Your task to perform on an android device: Show the shopping cart on ebay.com. Add "usb-a" to the cart on ebay.com Image 0: 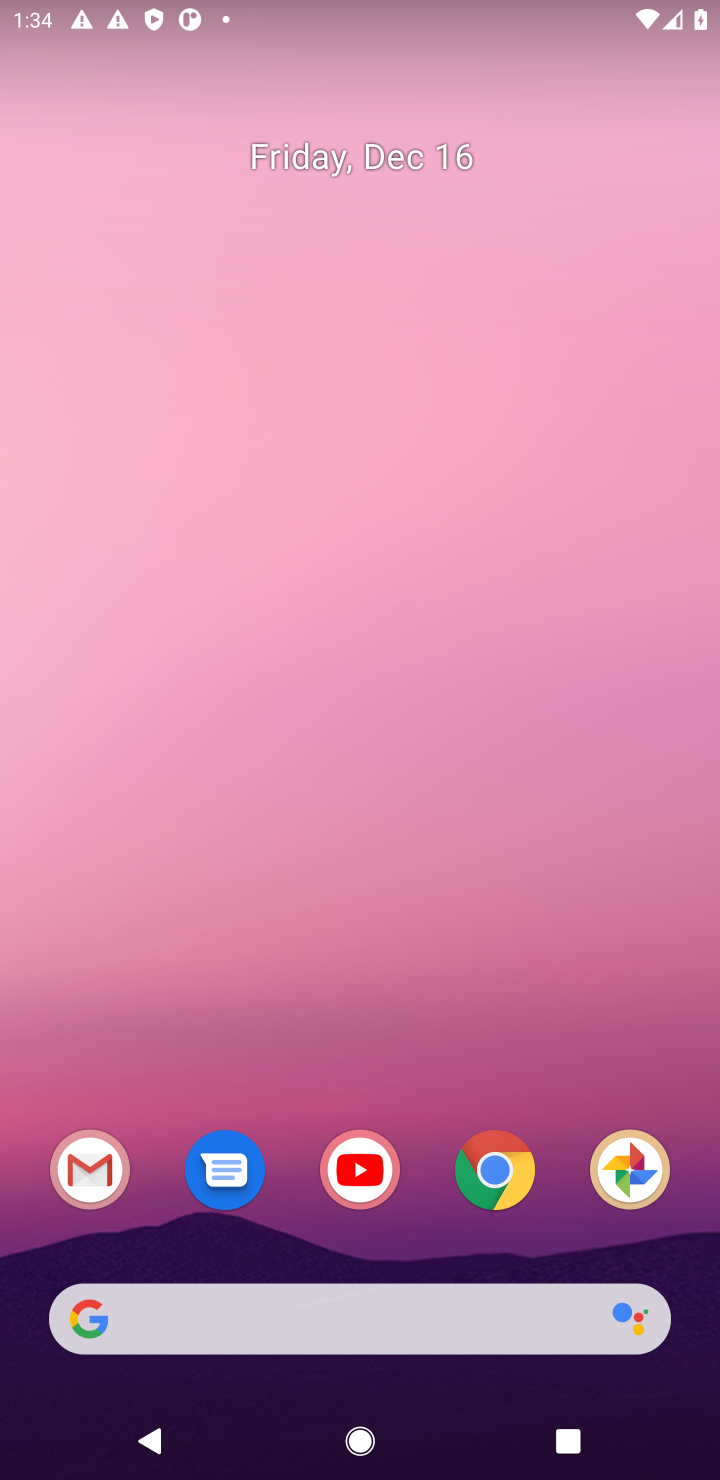
Step 0: click (496, 1169)
Your task to perform on an android device: Show the shopping cart on ebay.com. Add "usb-a" to the cart on ebay.com Image 1: 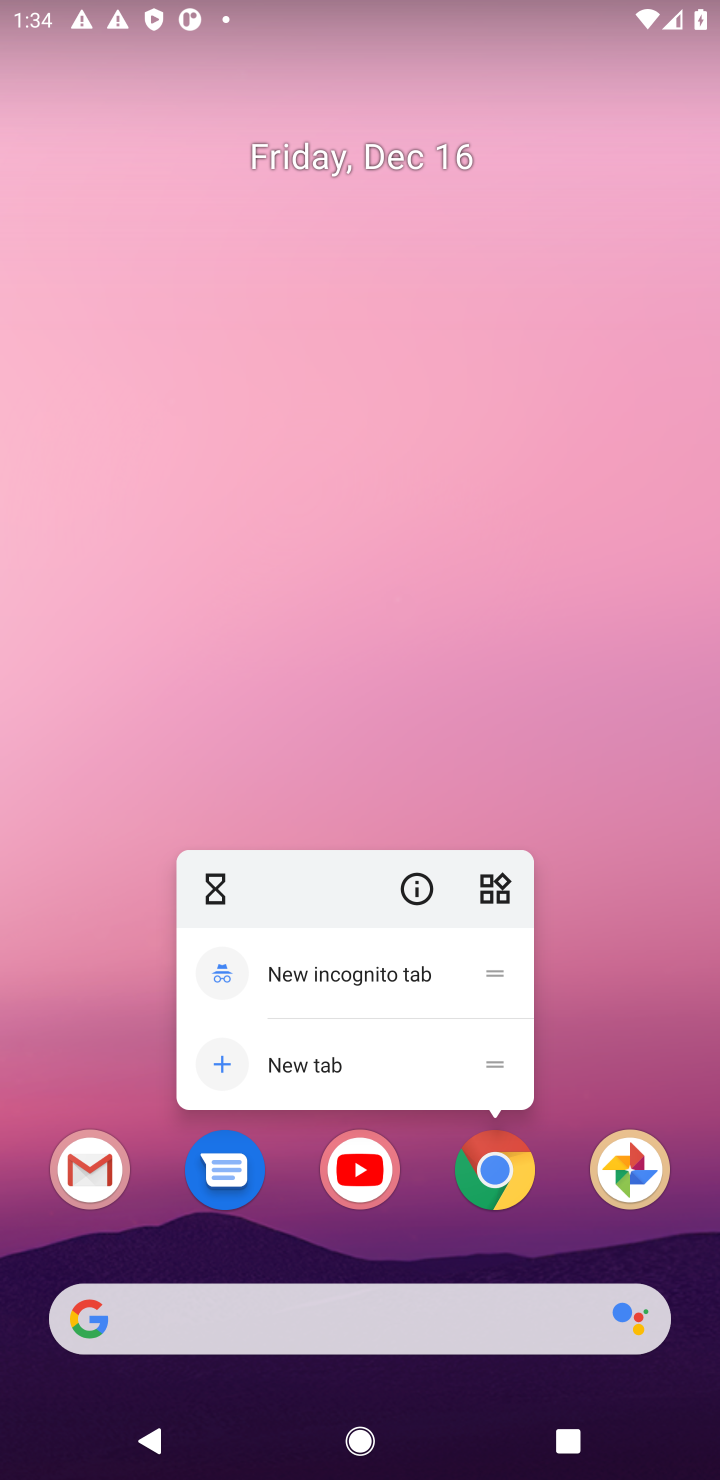
Step 1: click (499, 1177)
Your task to perform on an android device: Show the shopping cart on ebay.com. Add "usb-a" to the cart on ebay.com Image 2: 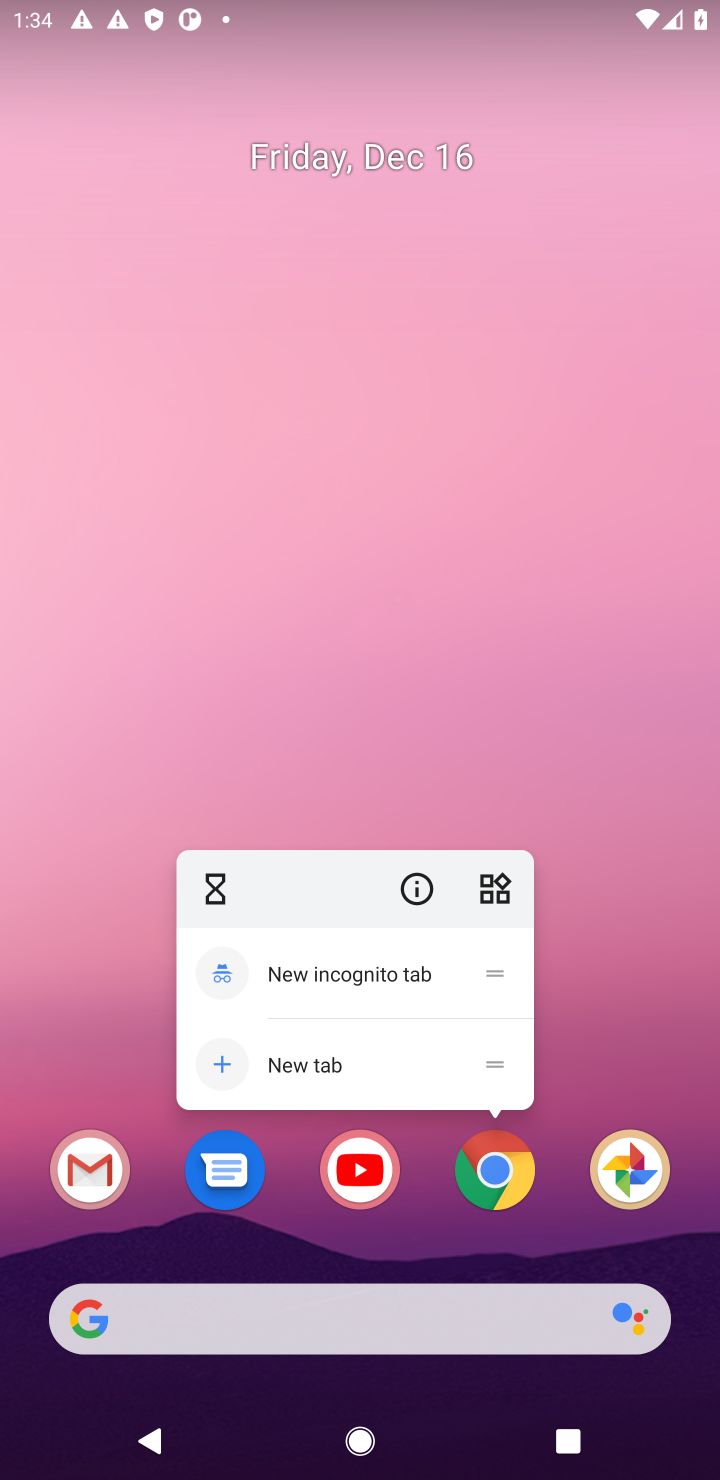
Step 2: click (583, 942)
Your task to perform on an android device: Show the shopping cart on ebay.com. Add "usb-a" to the cart on ebay.com Image 3: 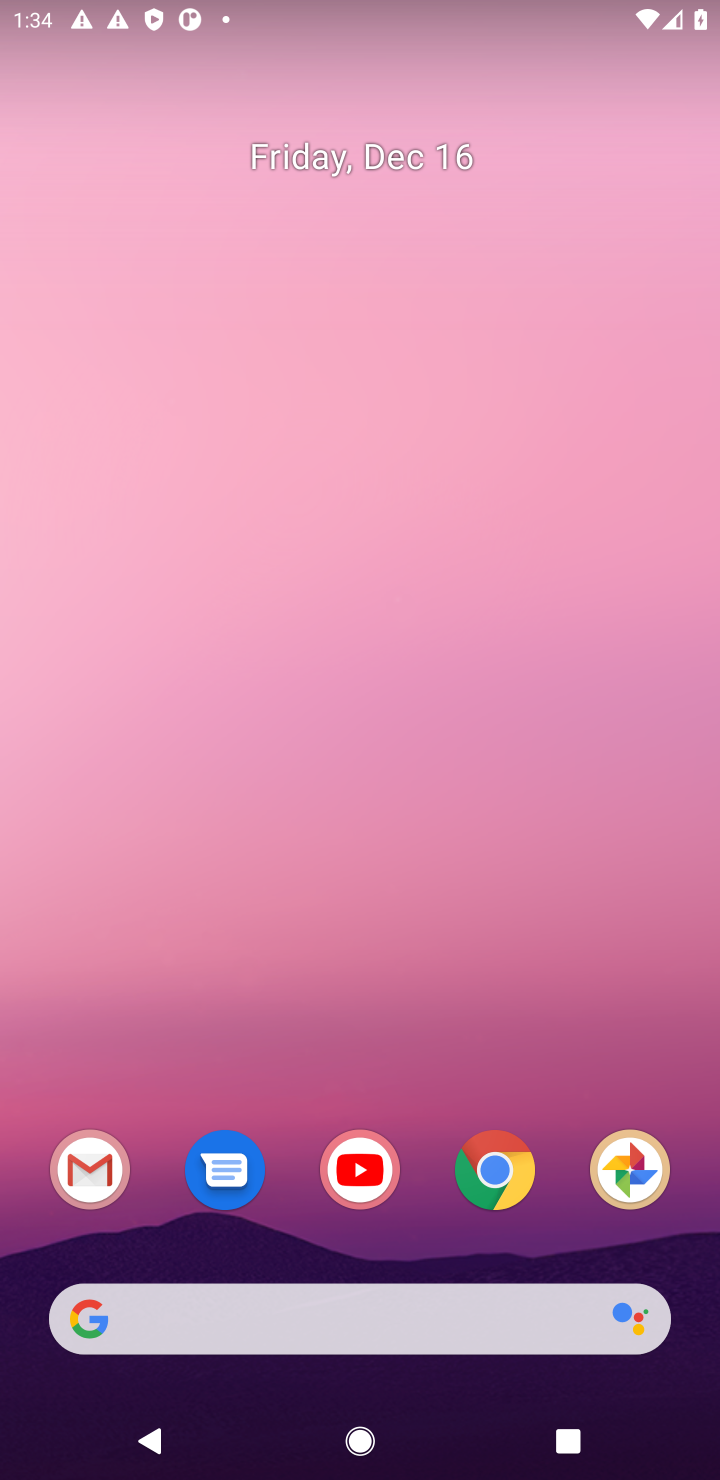
Step 3: click (506, 1175)
Your task to perform on an android device: Show the shopping cart on ebay.com. Add "usb-a" to the cart on ebay.com Image 4: 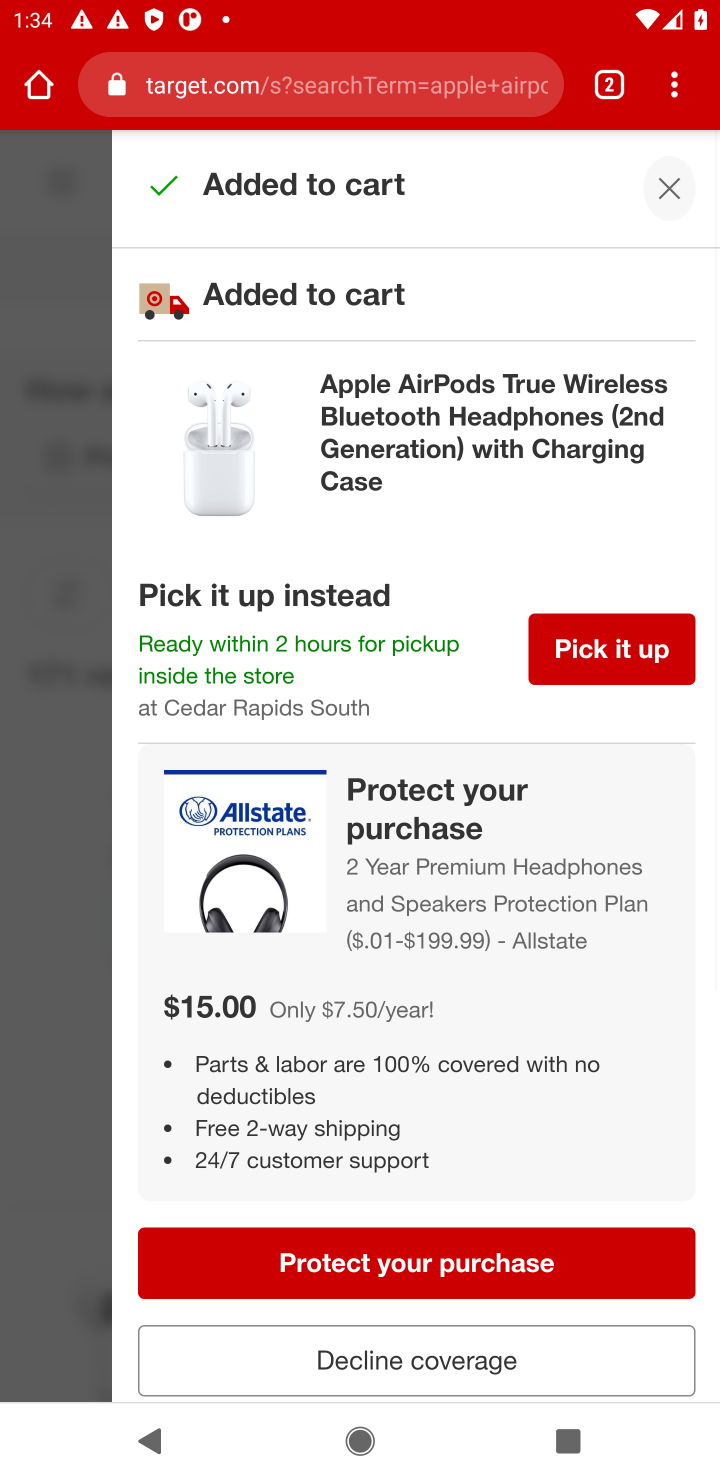
Step 4: click (235, 88)
Your task to perform on an android device: Show the shopping cart on ebay.com. Add "usb-a" to the cart on ebay.com Image 5: 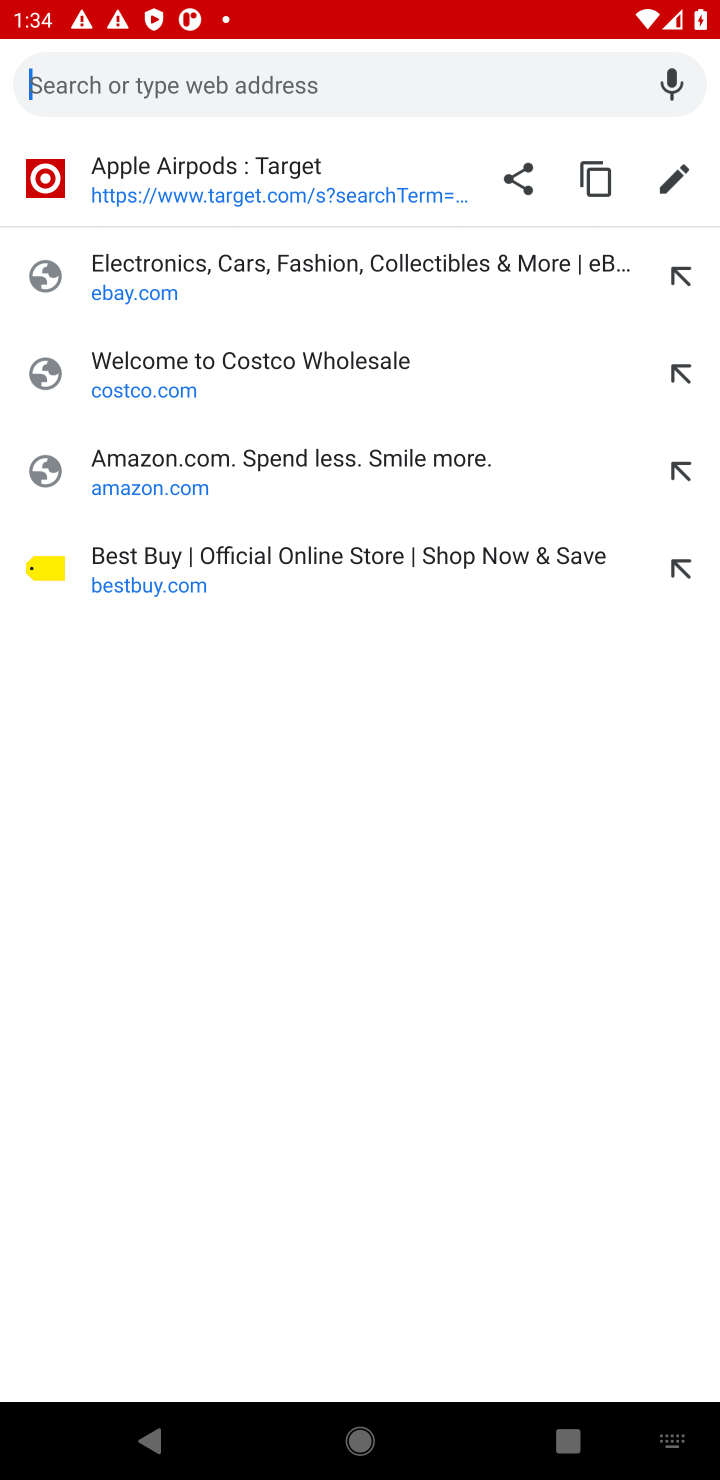
Step 5: click (122, 287)
Your task to perform on an android device: Show the shopping cart on ebay.com. Add "usb-a" to the cart on ebay.com Image 6: 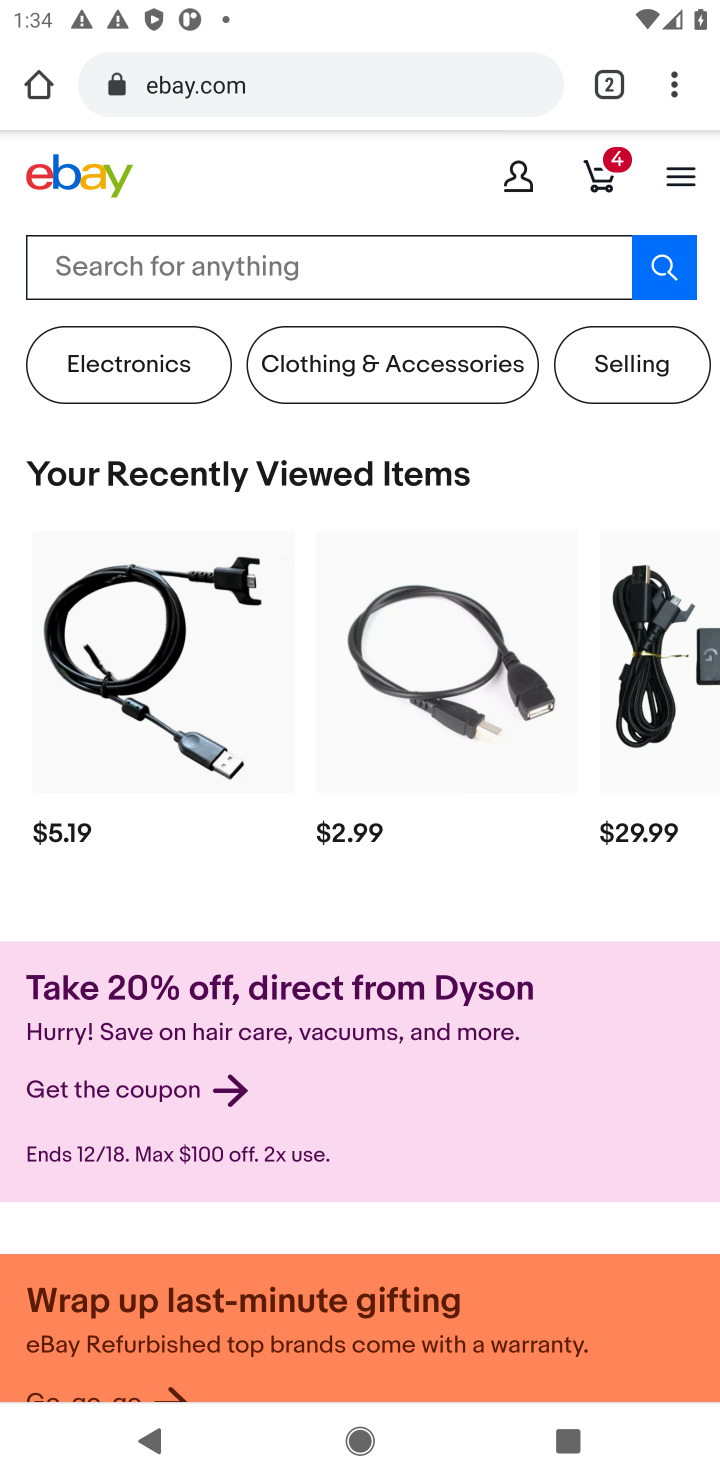
Step 6: click (610, 178)
Your task to perform on an android device: Show the shopping cart on ebay.com. Add "usb-a" to the cart on ebay.com Image 7: 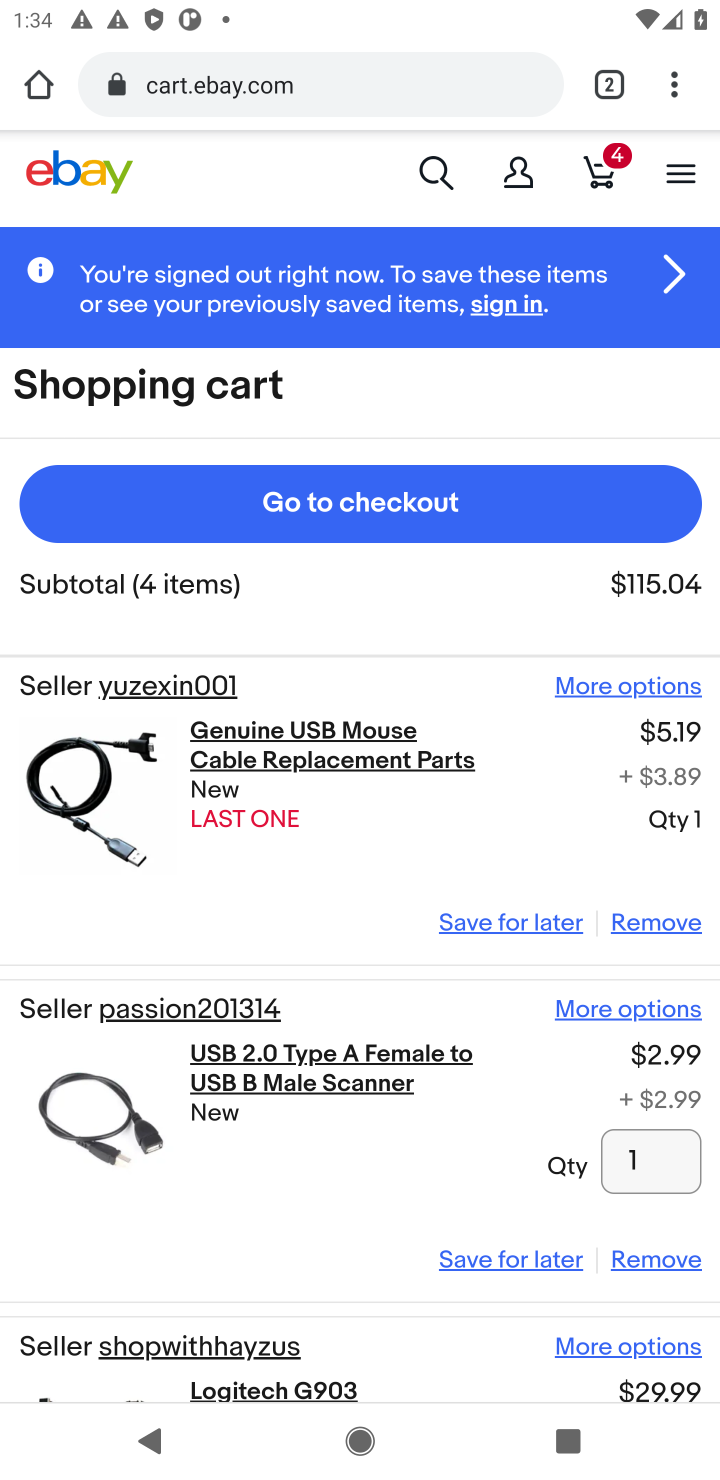
Step 7: click (433, 173)
Your task to perform on an android device: Show the shopping cart on ebay.com. Add "usb-a" to the cart on ebay.com Image 8: 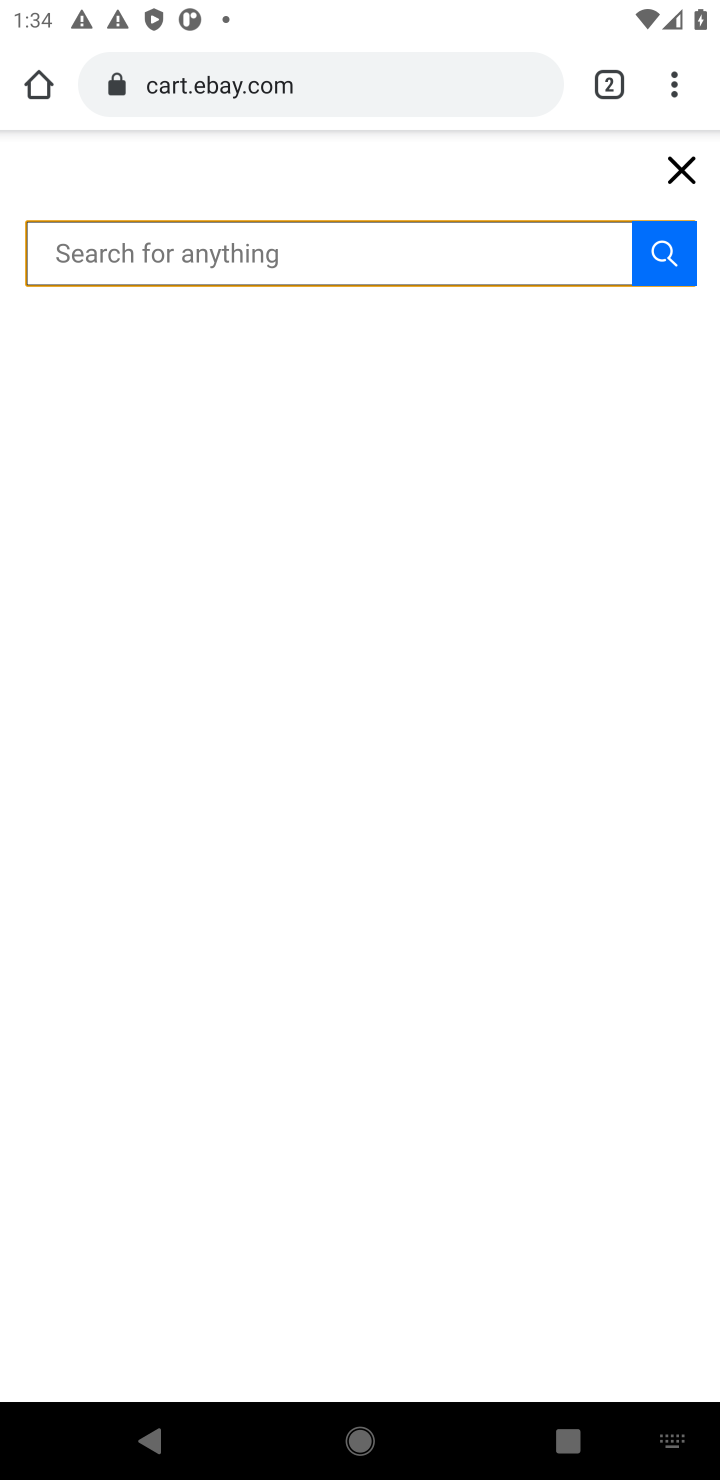
Step 8: type "usb-a"
Your task to perform on an android device: Show the shopping cart on ebay.com. Add "usb-a" to the cart on ebay.com Image 9: 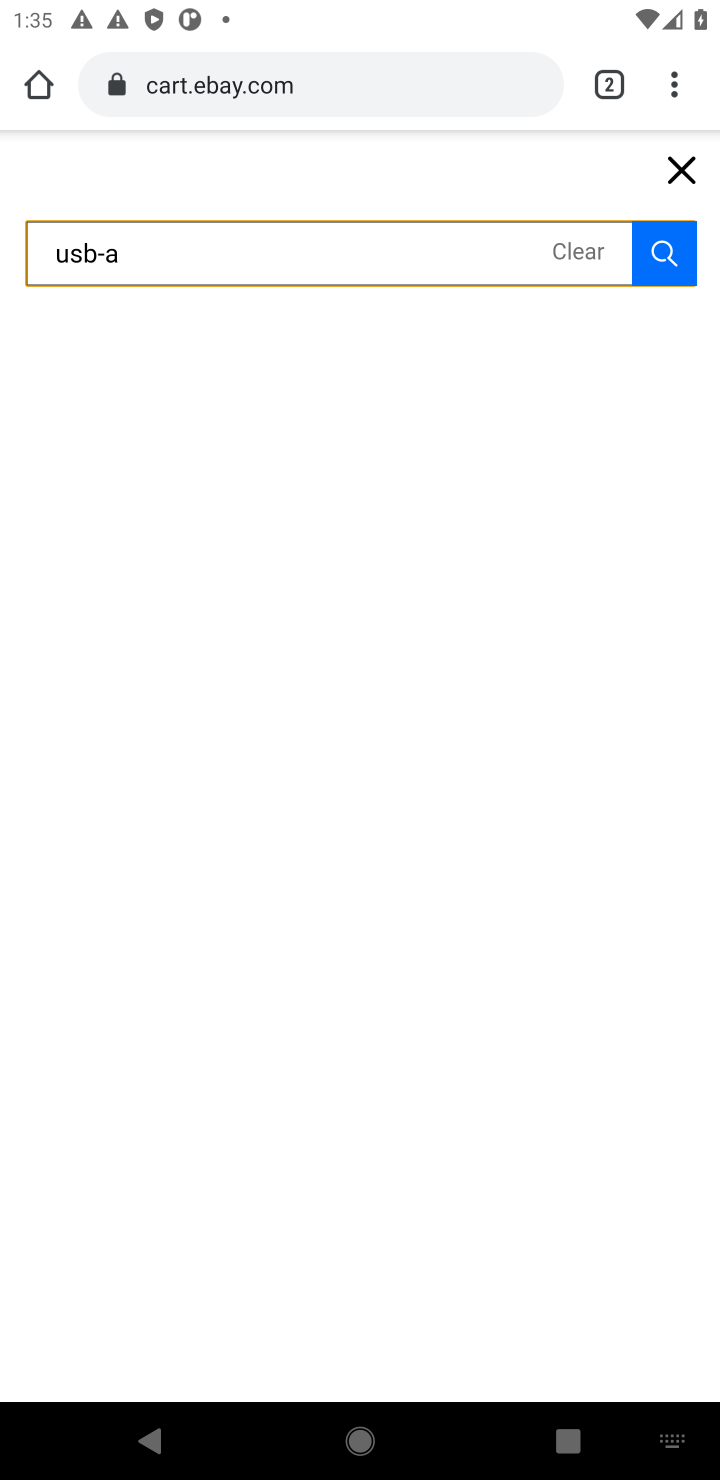
Step 9: click (666, 258)
Your task to perform on an android device: Show the shopping cart on ebay.com. Add "usb-a" to the cart on ebay.com Image 10: 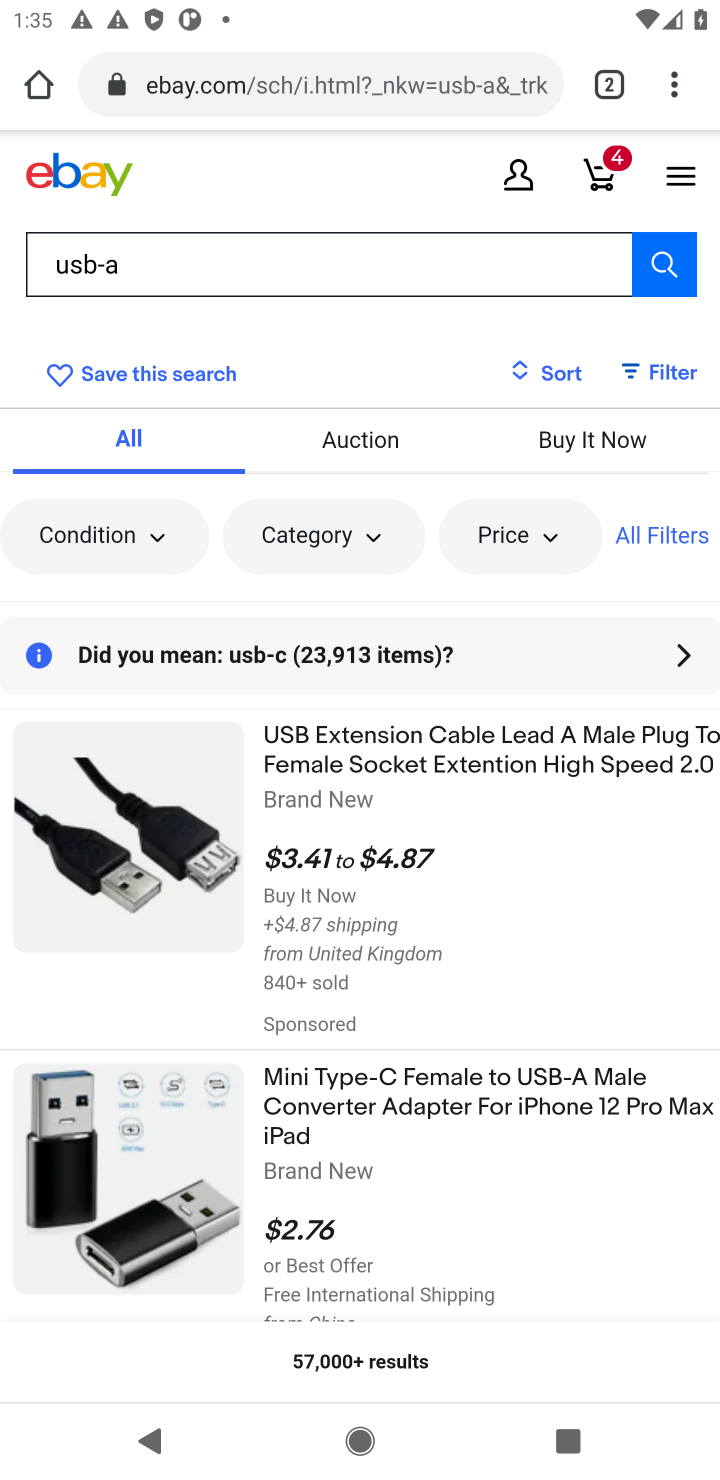
Step 10: click (293, 1120)
Your task to perform on an android device: Show the shopping cart on ebay.com. Add "usb-a" to the cart on ebay.com Image 11: 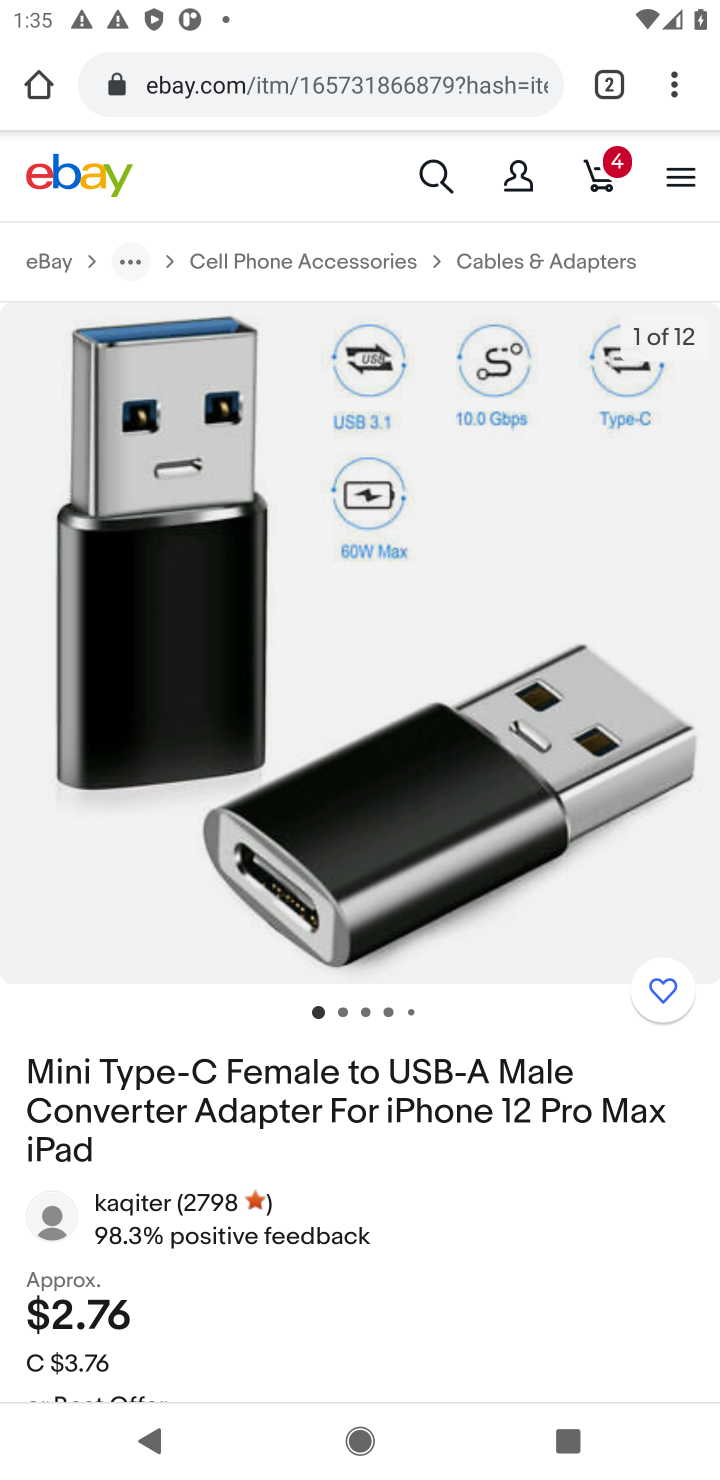
Step 11: drag from (293, 1120) to (276, 496)
Your task to perform on an android device: Show the shopping cart on ebay.com. Add "usb-a" to the cart on ebay.com Image 12: 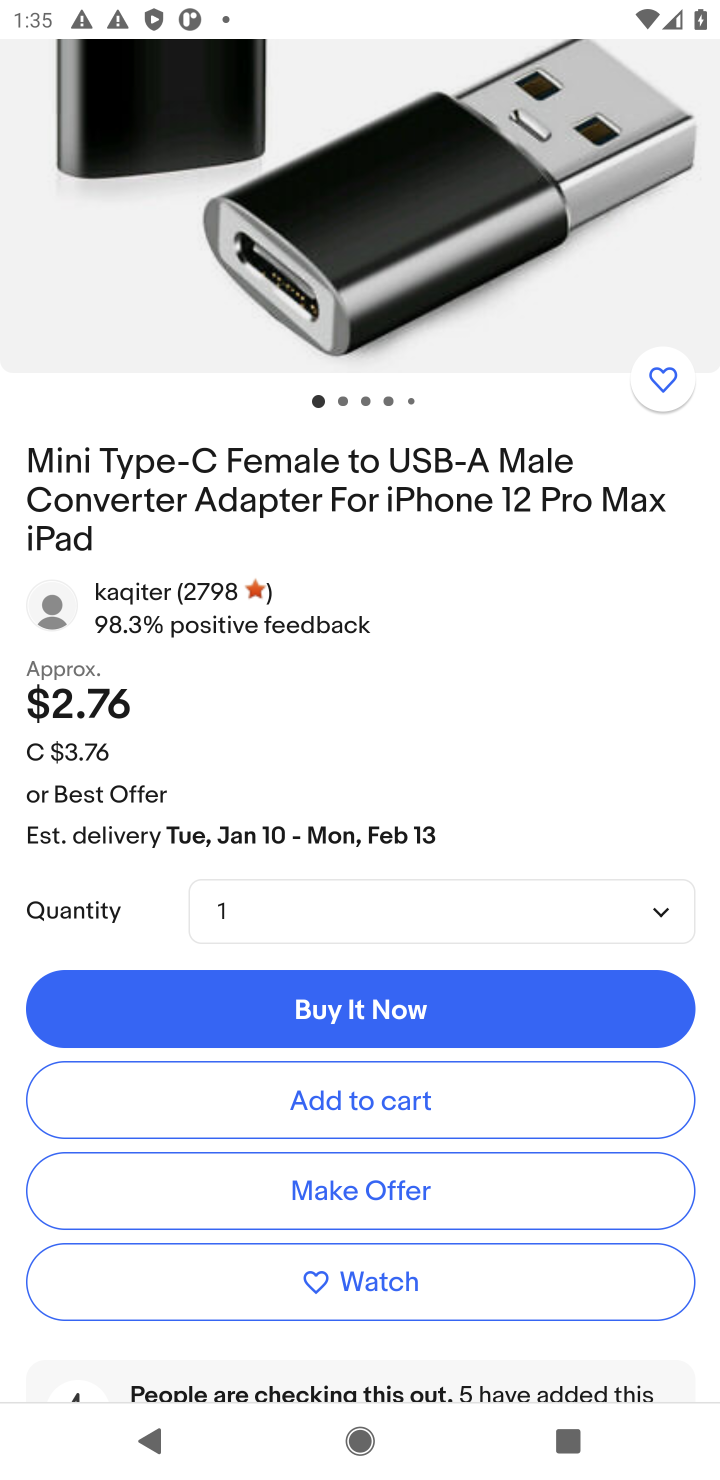
Step 12: click (361, 1106)
Your task to perform on an android device: Show the shopping cart on ebay.com. Add "usb-a" to the cart on ebay.com Image 13: 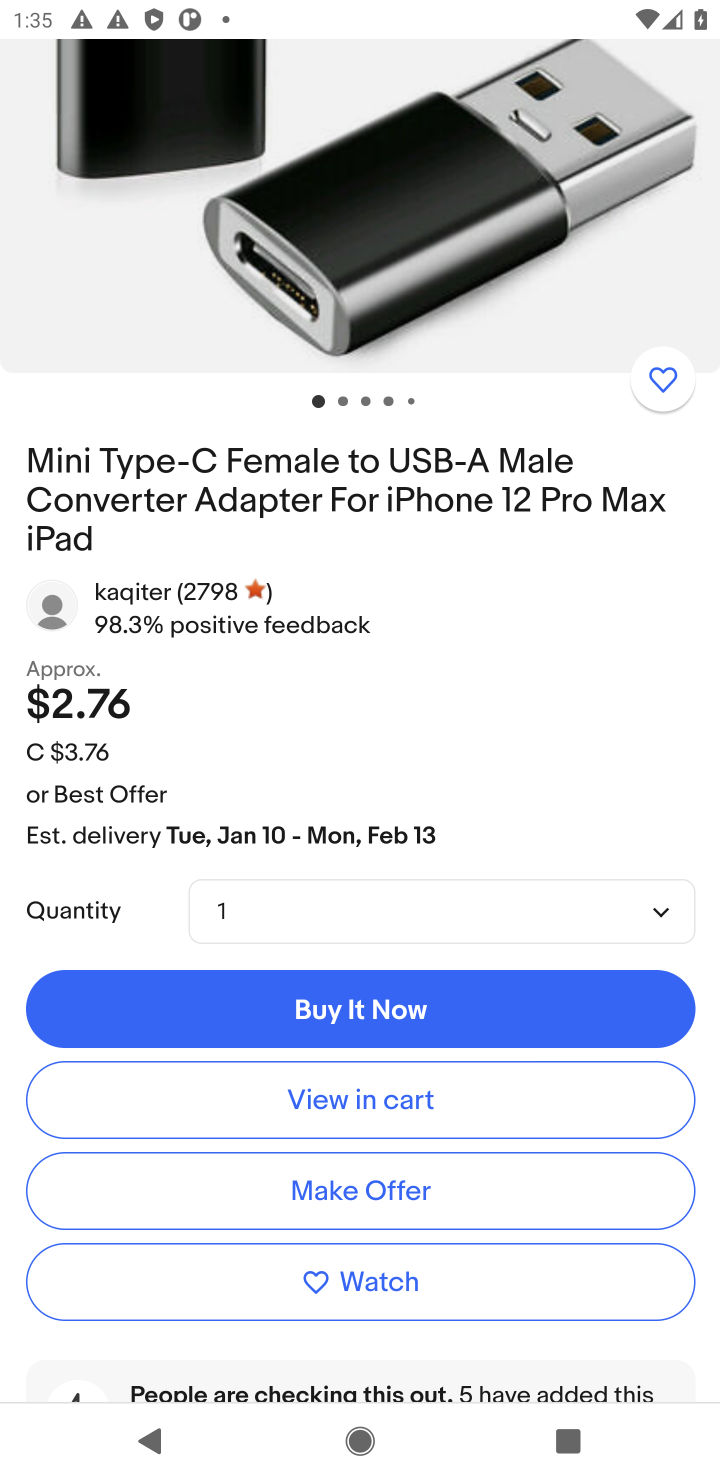
Step 13: task complete